Your task to perform on an android device: toggle priority inbox in the gmail app Image 0: 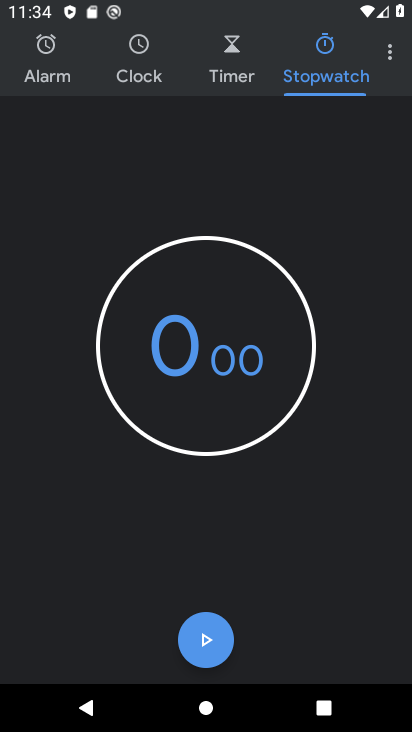
Step 0: press home button
Your task to perform on an android device: toggle priority inbox in the gmail app Image 1: 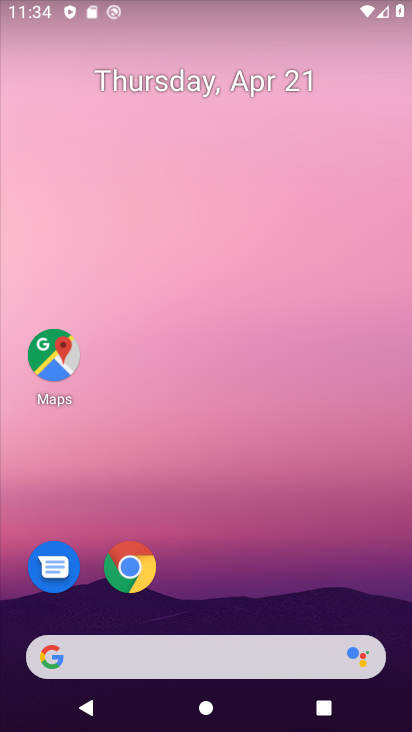
Step 1: drag from (183, 608) to (219, 106)
Your task to perform on an android device: toggle priority inbox in the gmail app Image 2: 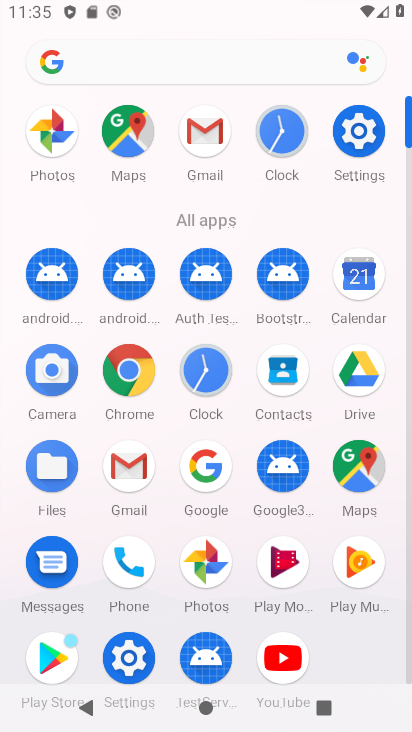
Step 2: click (197, 144)
Your task to perform on an android device: toggle priority inbox in the gmail app Image 3: 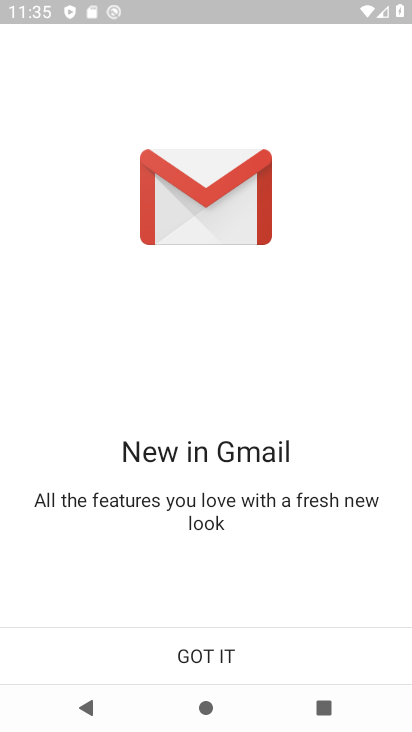
Step 3: click (190, 658)
Your task to perform on an android device: toggle priority inbox in the gmail app Image 4: 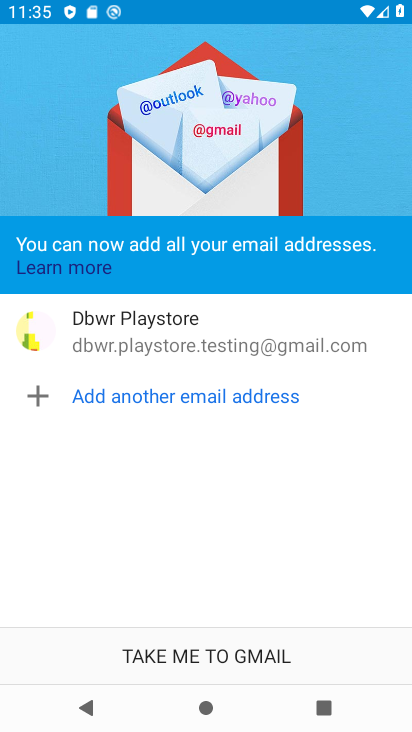
Step 4: click (215, 340)
Your task to perform on an android device: toggle priority inbox in the gmail app Image 5: 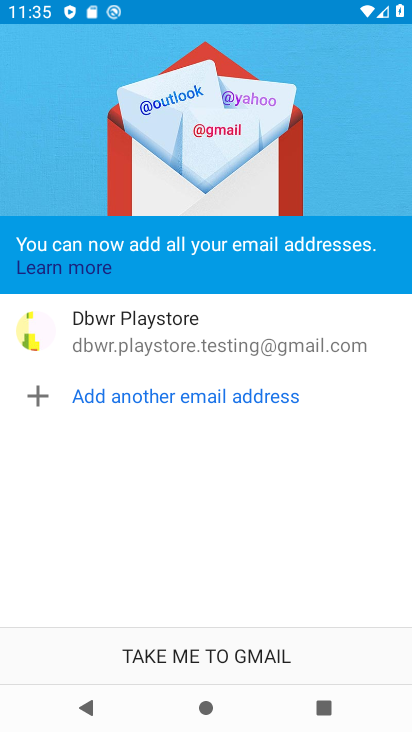
Step 5: click (189, 657)
Your task to perform on an android device: toggle priority inbox in the gmail app Image 6: 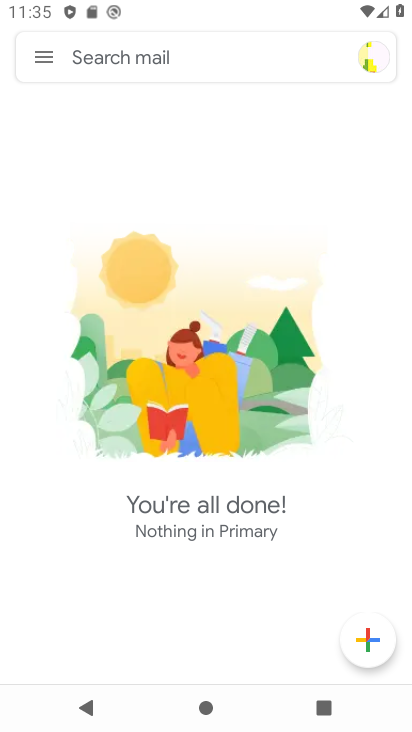
Step 6: click (40, 58)
Your task to perform on an android device: toggle priority inbox in the gmail app Image 7: 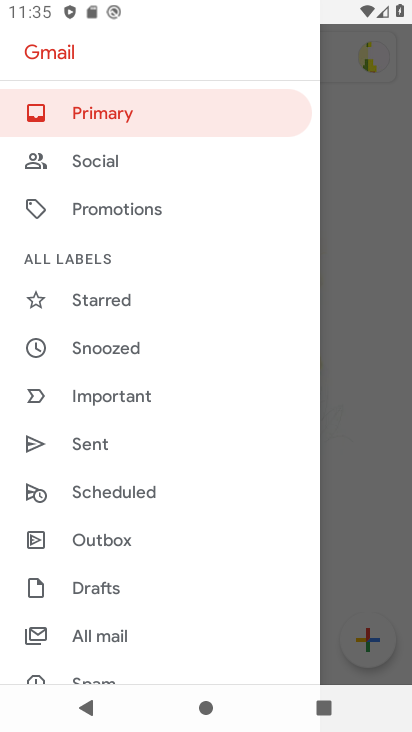
Step 7: drag from (143, 602) to (135, 171)
Your task to perform on an android device: toggle priority inbox in the gmail app Image 8: 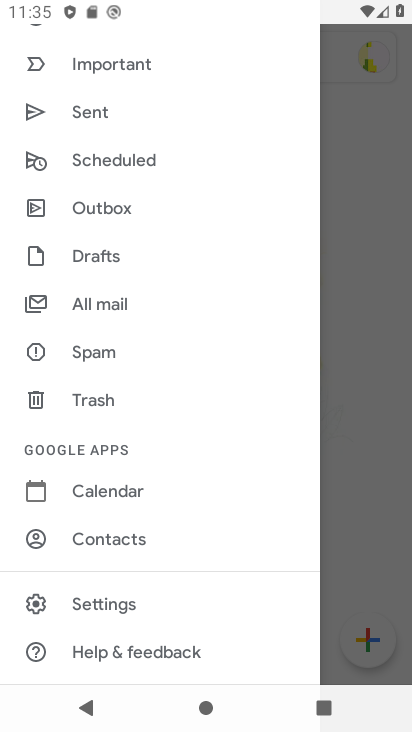
Step 8: click (122, 600)
Your task to perform on an android device: toggle priority inbox in the gmail app Image 9: 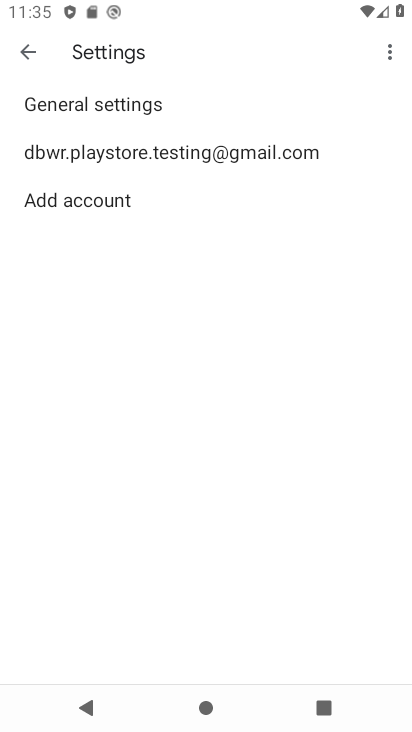
Step 9: click (137, 158)
Your task to perform on an android device: toggle priority inbox in the gmail app Image 10: 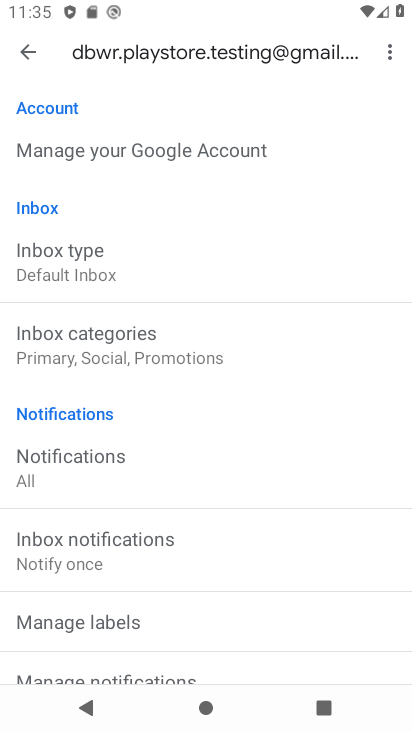
Step 10: click (63, 270)
Your task to perform on an android device: toggle priority inbox in the gmail app Image 11: 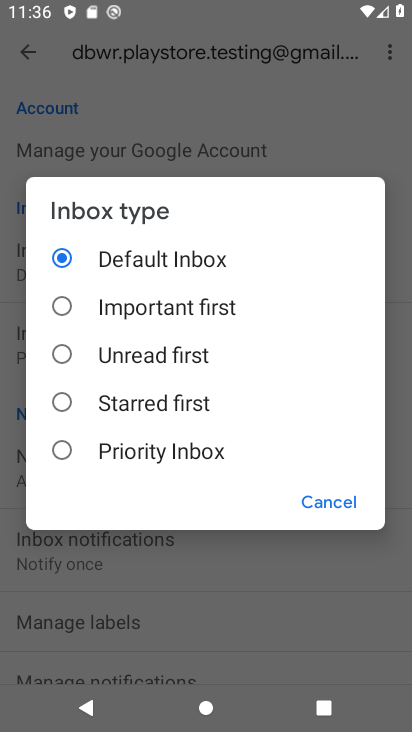
Step 11: task complete